Your task to perform on an android device: Is it going to rain tomorrow? Image 0: 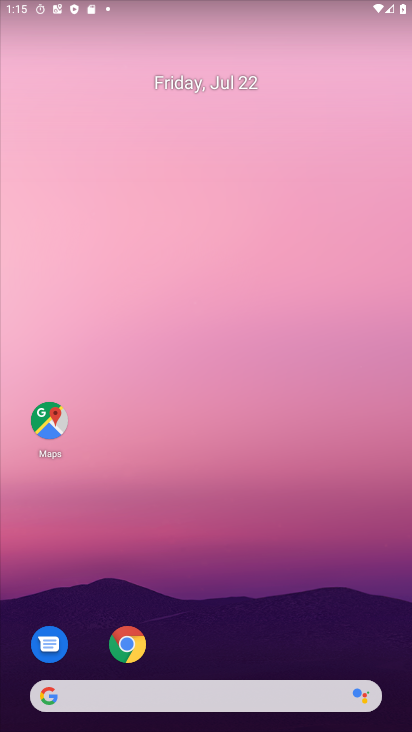
Step 0: drag from (230, 678) to (153, 205)
Your task to perform on an android device: Is it going to rain tomorrow? Image 1: 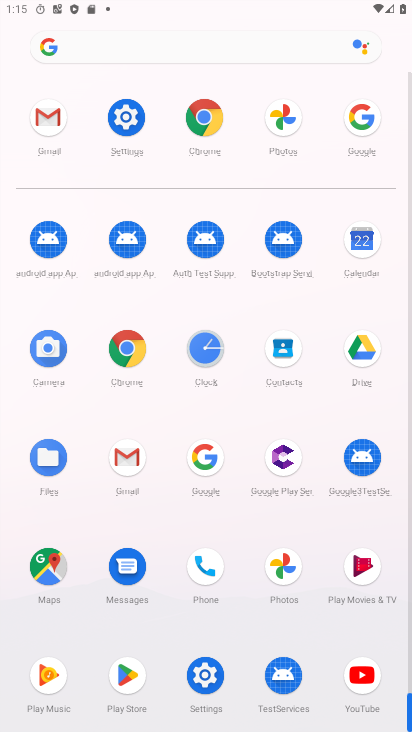
Step 1: drag from (260, 518) to (231, 153)
Your task to perform on an android device: Is it going to rain tomorrow? Image 2: 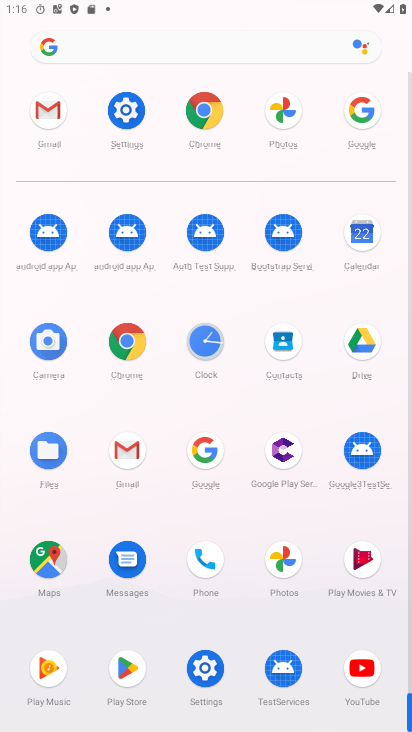
Step 2: click (203, 448)
Your task to perform on an android device: Is it going to rain tomorrow? Image 3: 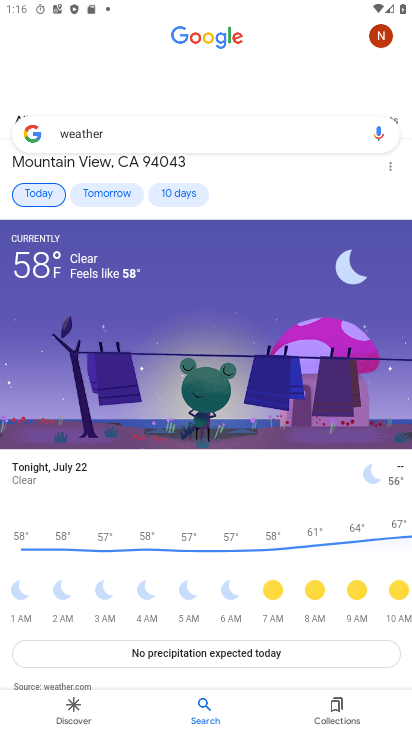
Step 3: click (106, 191)
Your task to perform on an android device: Is it going to rain tomorrow? Image 4: 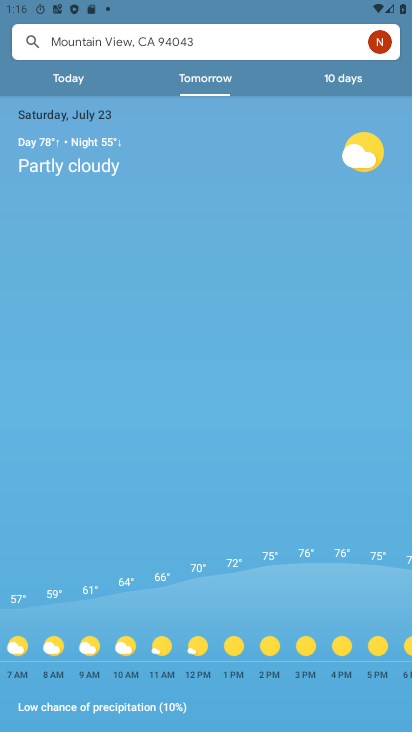
Step 4: task complete